Your task to perform on an android device: Search for Mexican restaurants on Maps Image 0: 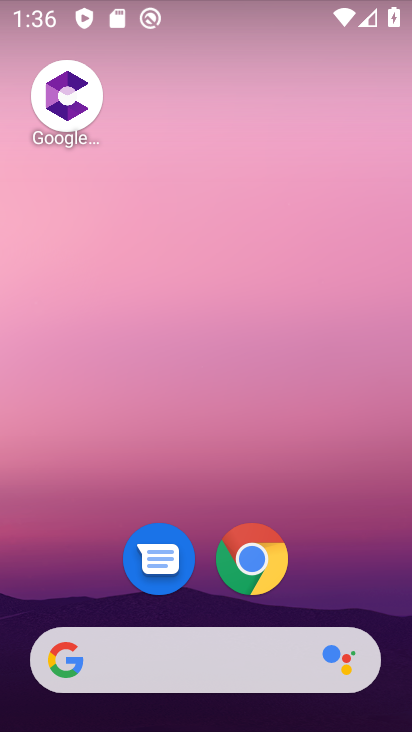
Step 0: drag from (327, 569) to (218, 21)
Your task to perform on an android device: Search for Mexican restaurants on Maps Image 1: 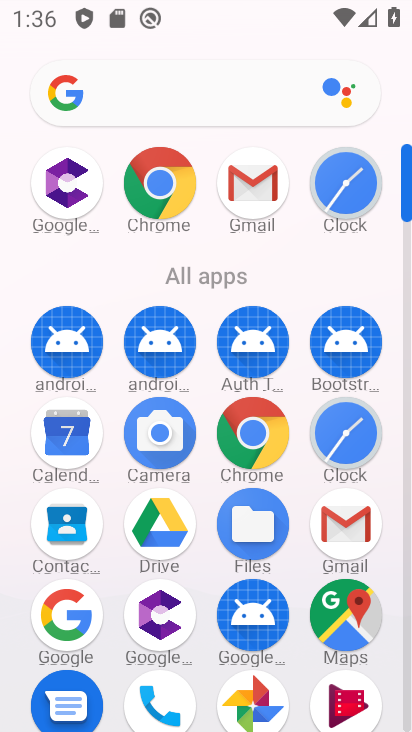
Step 1: drag from (13, 641) to (0, 275)
Your task to perform on an android device: Search for Mexican restaurants on Maps Image 2: 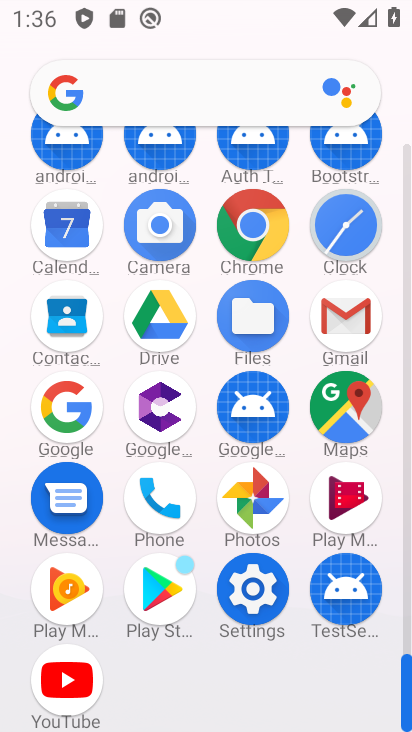
Step 2: click (342, 405)
Your task to perform on an android device: Search for Mexican restaurants on Maps Image 3: 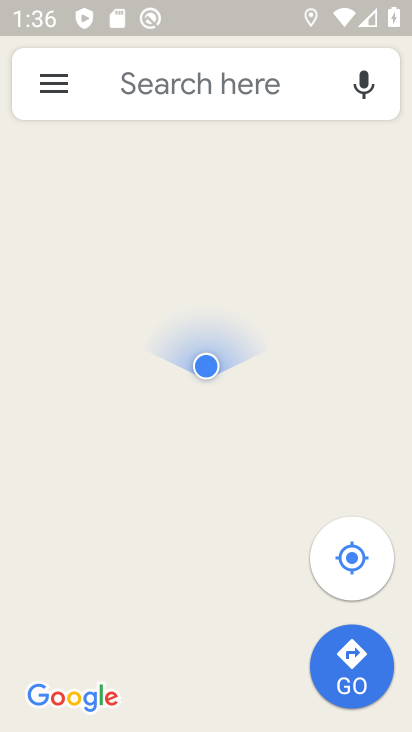
Step 3: click (296, 72)
Your task to perform on an android device: Search for Mexican restaurants on Maps Image 4: 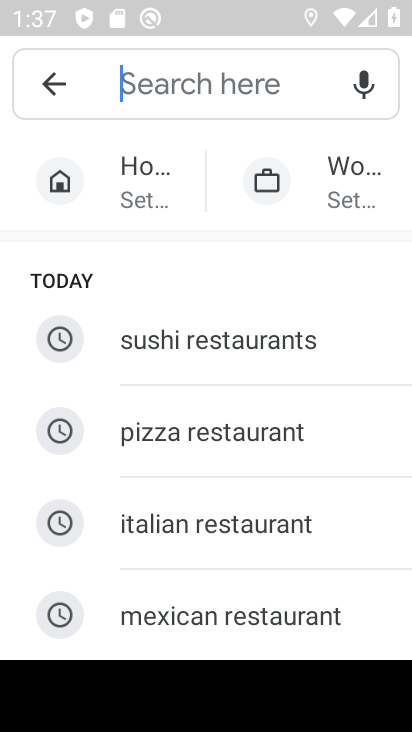
Step 4: type " Mexican restaurants"
Your task to perform on an android device: Search for Mexican restaurants on Maps Image 5: 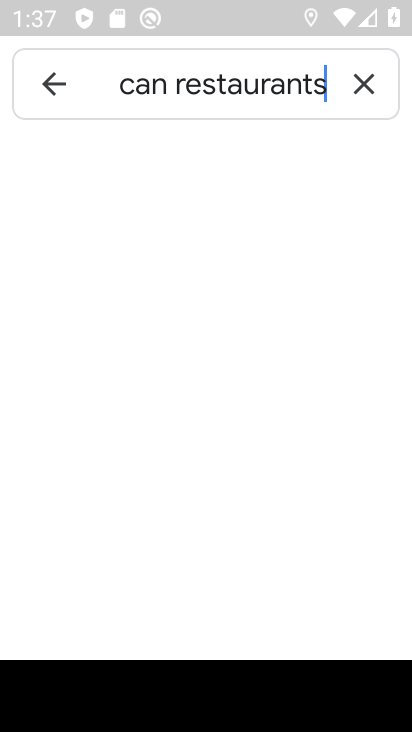
Step 5: type ""
Your task to perform on an android device: Search for Mexican restaurants on Maps Image 6: 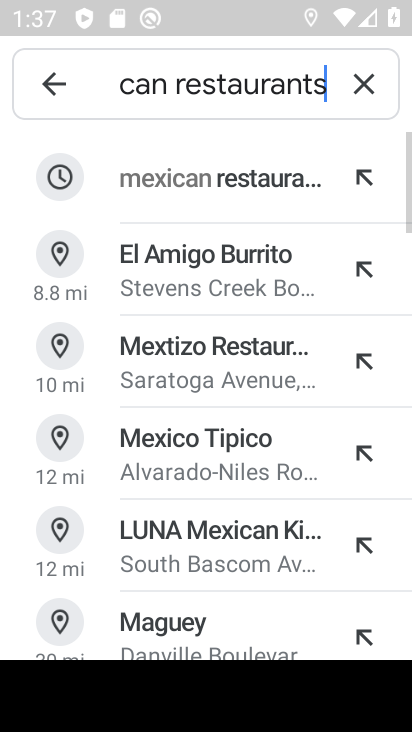
Step 6: click (212, 166)
Your task to perform on an android device: Search for Mexican restaurants on Maps Image 7: 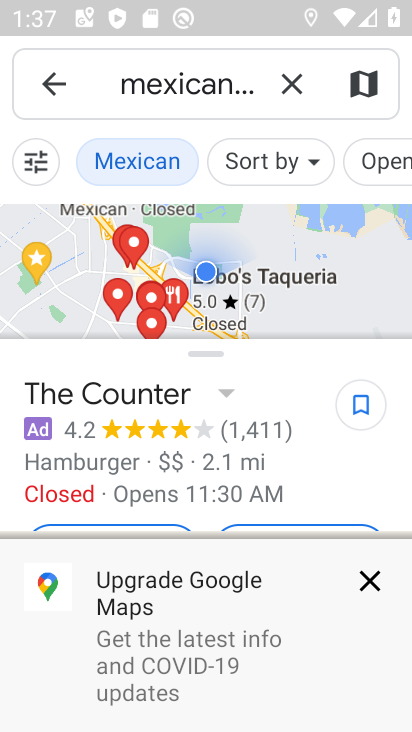
Step 7: task complete